Your task to perform on an android device: create a new album in the google photos Image 0: 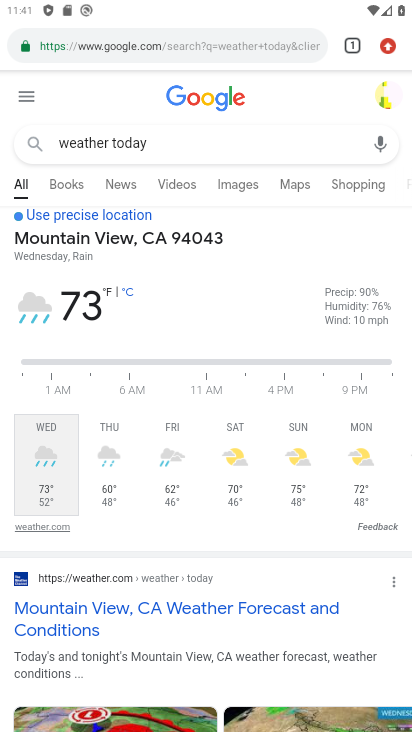
Step 0: drag from (217, 272) to (311, 652)
Your task to perform on an android device: create a new album in the google photos Image 1: 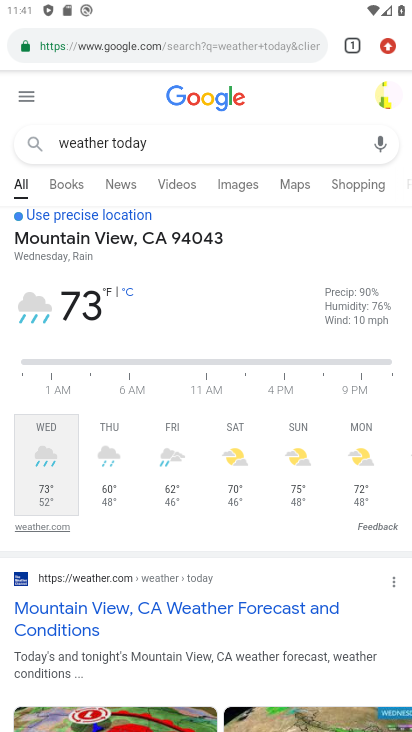
Step 1: press home button
Your task to perform on an android device: create a new album in the google photos Image 2: 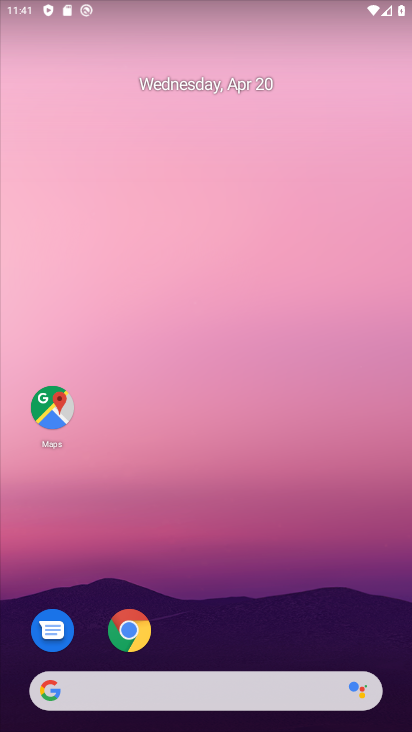
Step 2: drag from (236, 620) to (236, 226)
Your task to perform on an android device: create a new album in the google photos Image 3: 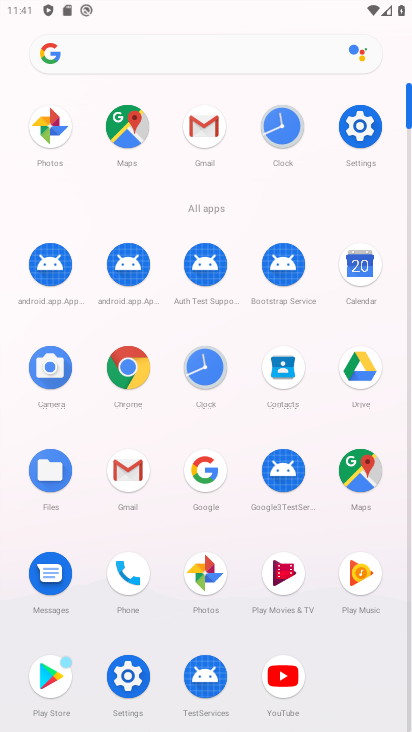
Step 3: click (198, 555)
Your task to perform on an android device: create a new album in the google photos Image 4: 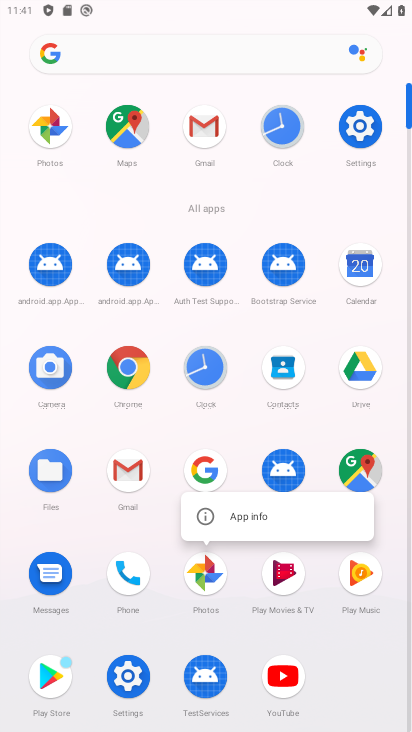
Step 4: click (254, 516)
Your task to perform on an android device: create a new album in the google photos Image 5: 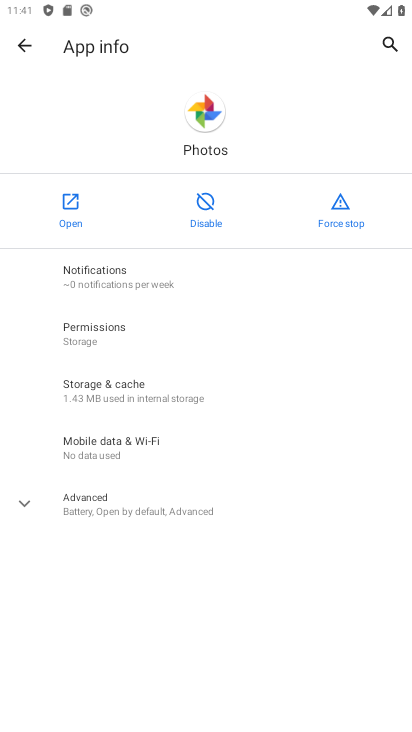
Step 5: click (73, 203)
Your task to perform on an android device: create a new album in the google photos Image 6: 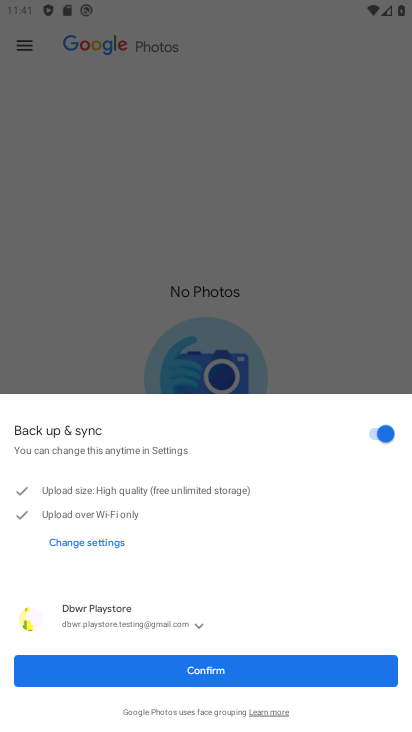
Step 6: click (215, 663)
Your task to perform on an android device: create a new album in the google photos Image 7: 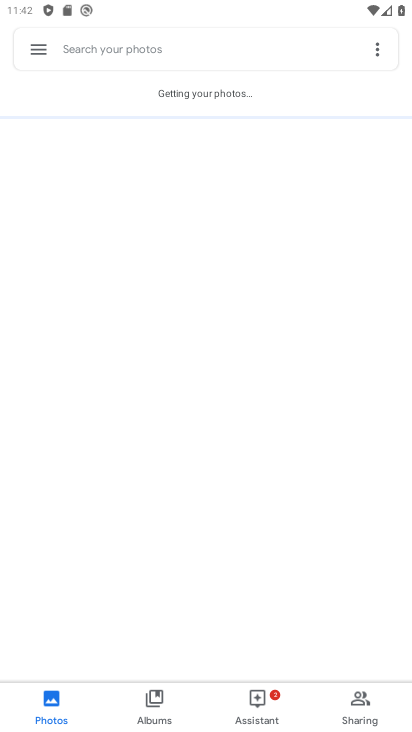
Step 7: drag from (180, 611) to (266, 259)
Your task to perform on an android device: create a new album in the google photos Image 8: 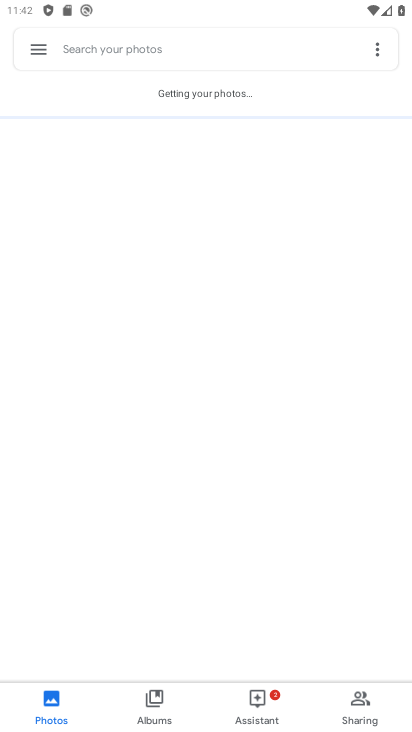
Step 8: click (354, 707)
Your task to perform on an android device: create a new album in the google photos Image 9: 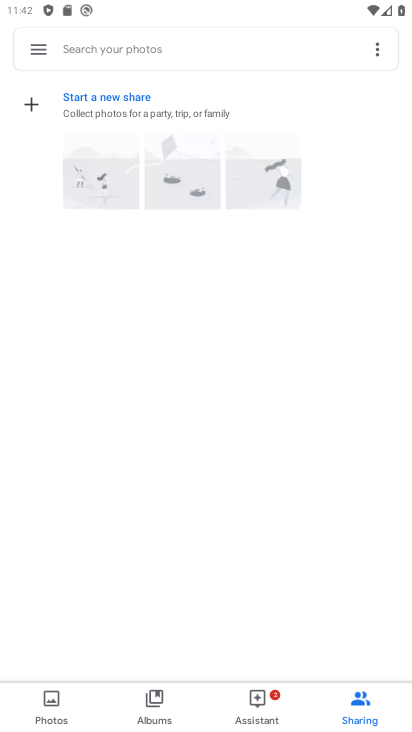
Step 9: click (163, 672)
Your task to perform on an android device: create a new album in the google photos Image 10: 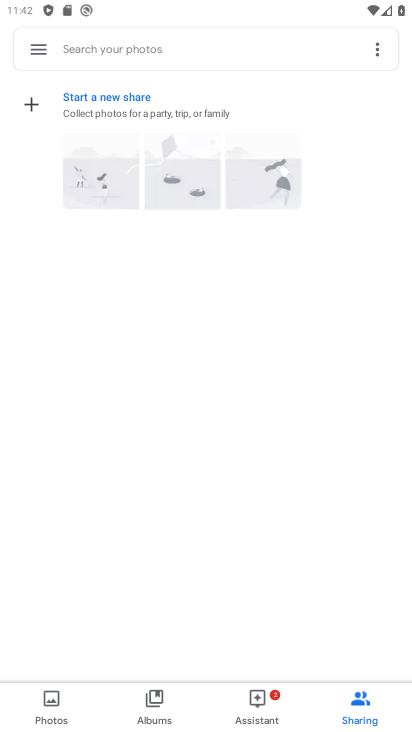
Step 10: click (151, 687)
Your task to perform on an android device: create a new album in the google photos Image 11: 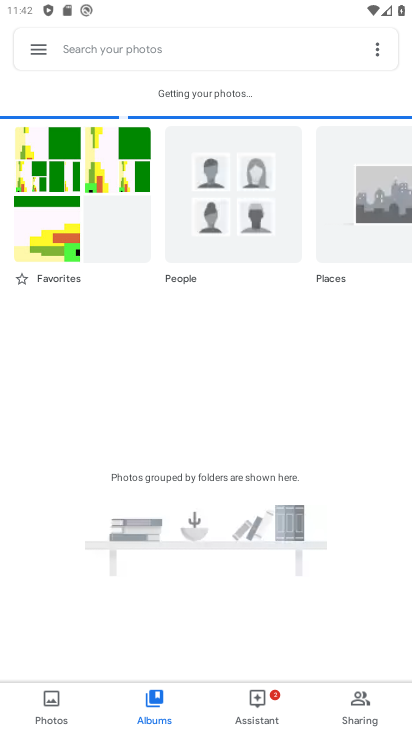
Step 11: task complete